Your task to perform on an android device: Open settings Image 0: 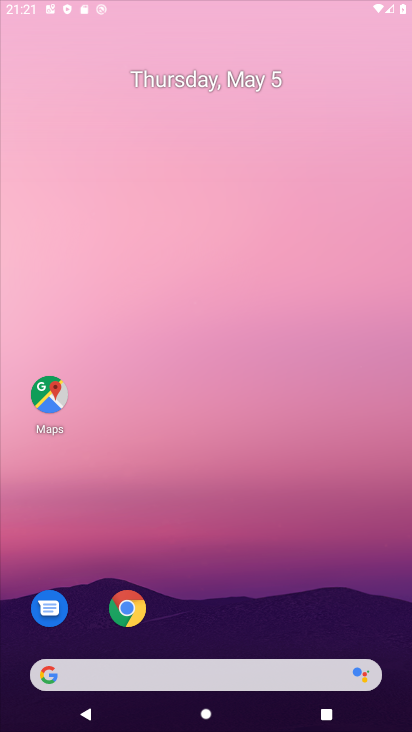
Step 0: click (264, 42)
Your task to perform on an android device: Open settings Image 1: 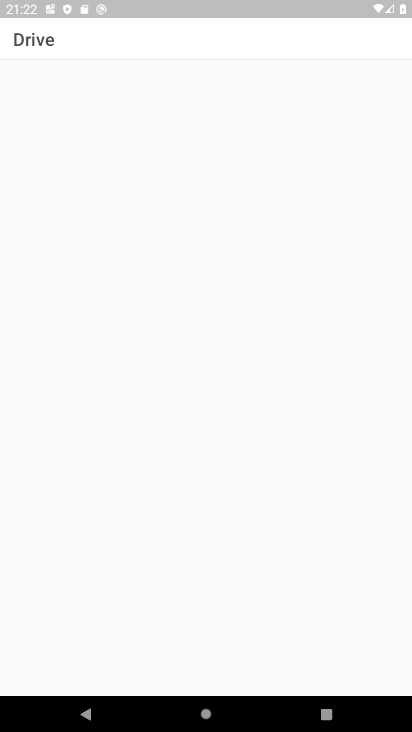
Step 1: press home button
Your task to perform on an android device: Open settings Image 2: 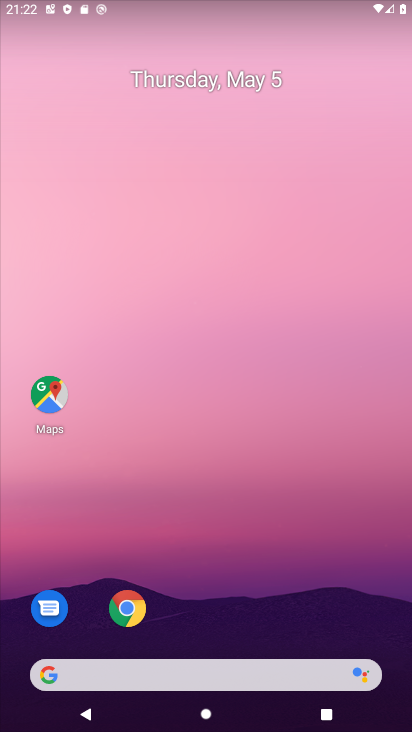
Step 2: drag from (298, 671) to (325, 1)
Your task to perform on an android device: Open settings Image 3: 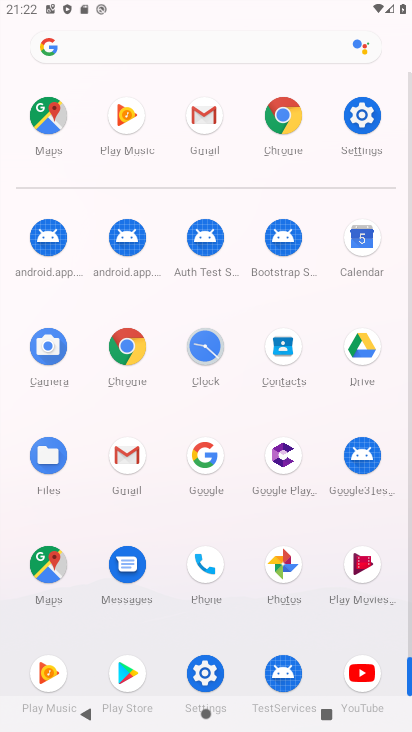
Step 3: click (203, 673)
Your task to perform on an android device: Open settings Image 4: 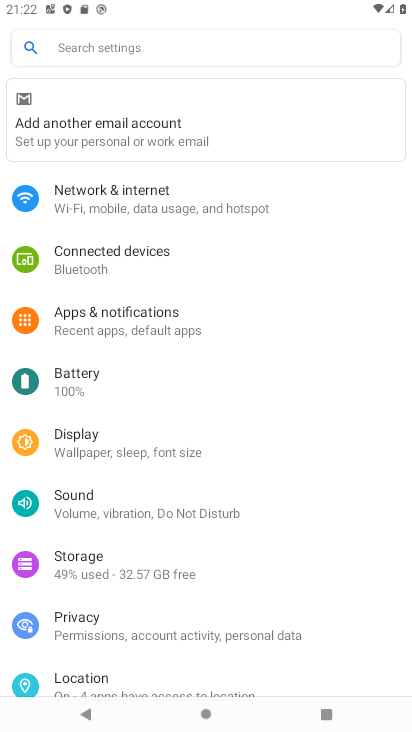
Step 4: task complete